Your task to perform on an android device: add a contact in the contacts app Image 0: 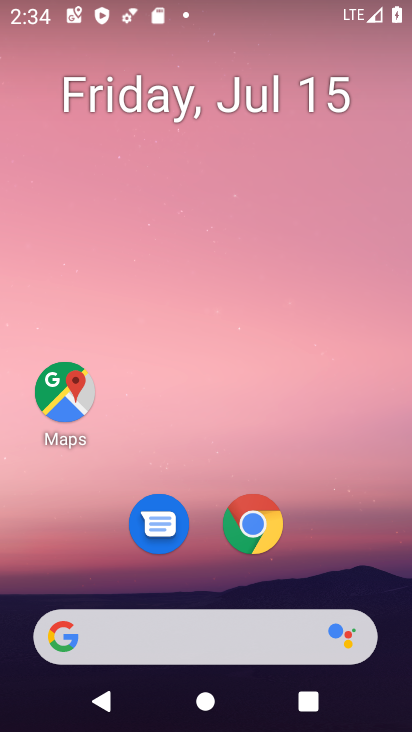
Step 0: press home button
Your task to perform on an android device: add a contact in the contacts app Image 1: 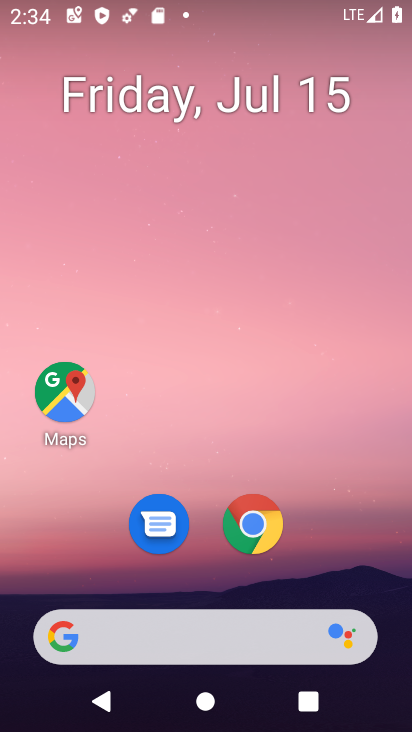
Step 1: drag from (218, 547) to (333, 23)
Your task to perform on an android device: add a contact in the contacts app Image 2: 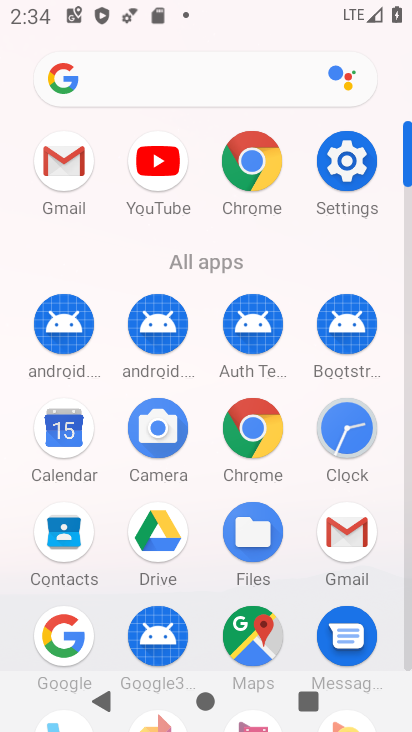
Step 2: click (62, 531)
Your task to perform on an android device: add a contact in the contacts app Image 3: 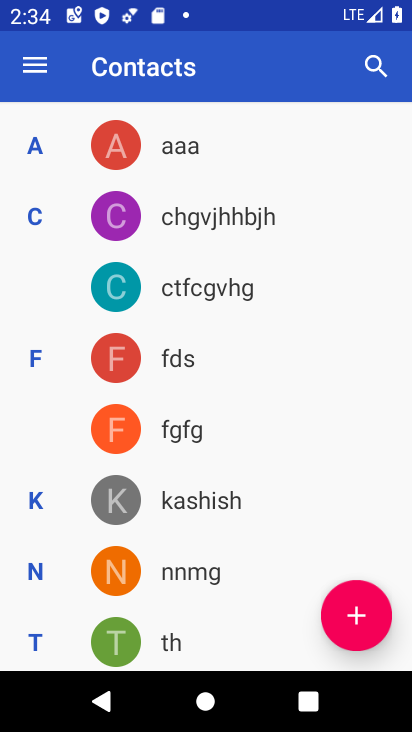
Step 3: click (357, 611)
Your task to perform on an android device: add a contact in the contacts app Image 4: 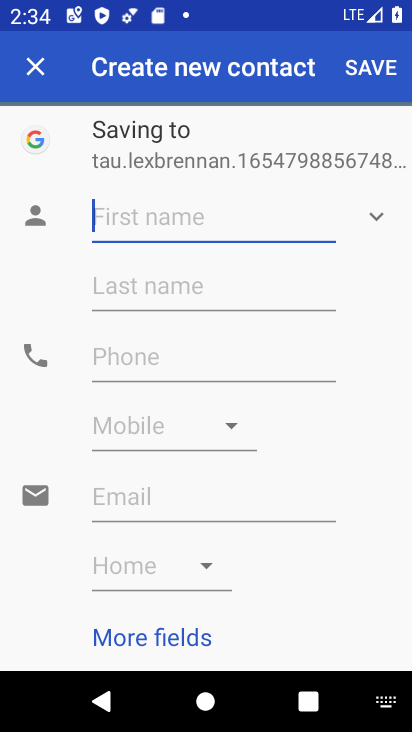
Step 4: type "mkooiiuu"
Your task to perform on an android device: add a contact in the contacts app Image 5: 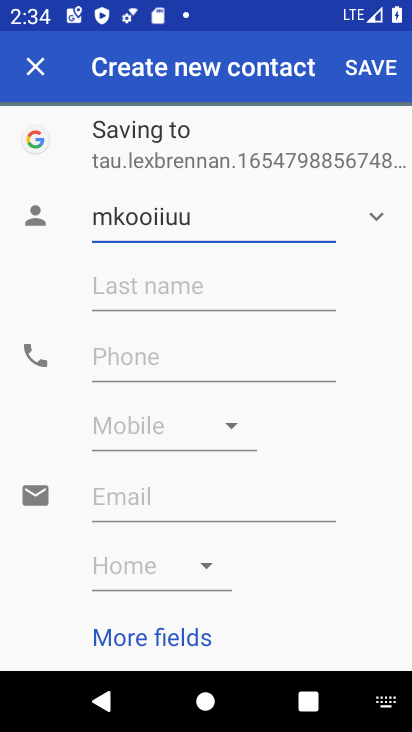
Step 5: click (132, 369)
Your task to perform on an android device: add a contact in the contacts app Image 6: 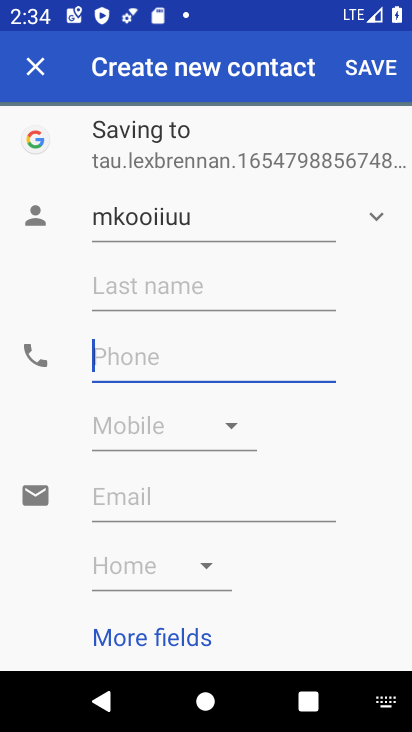
Step 6: type "4765887766"
Your task to perform on an android device: add a contact in the contacts app Image 7: 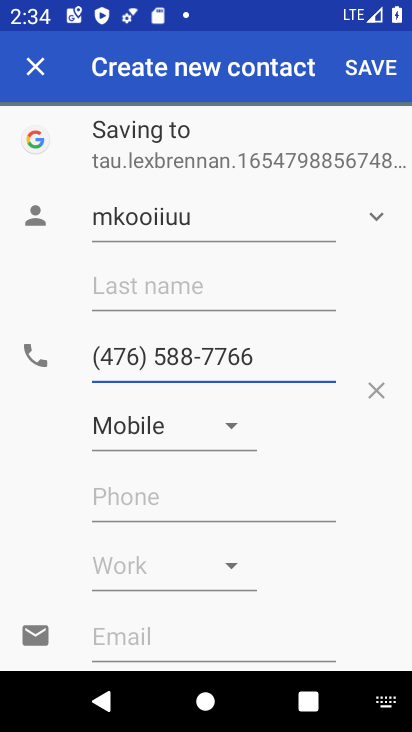
Step 7: click (356, 65)
Your task to perform on an android device: add a contact in the contacts app Image 8: 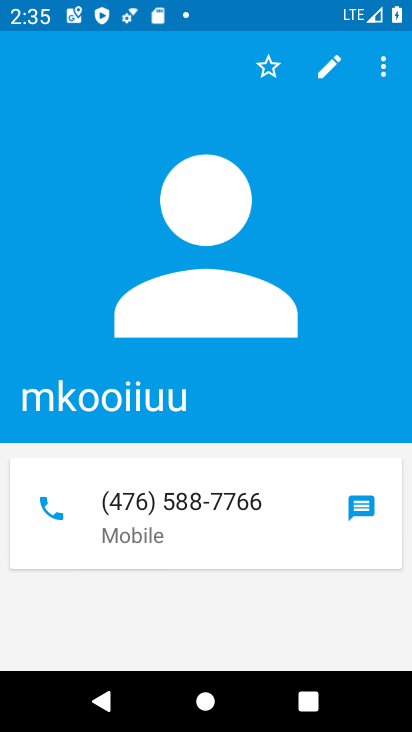
Step 8: task complete